Your task to perform on an android device: Open Android settings Image 0: 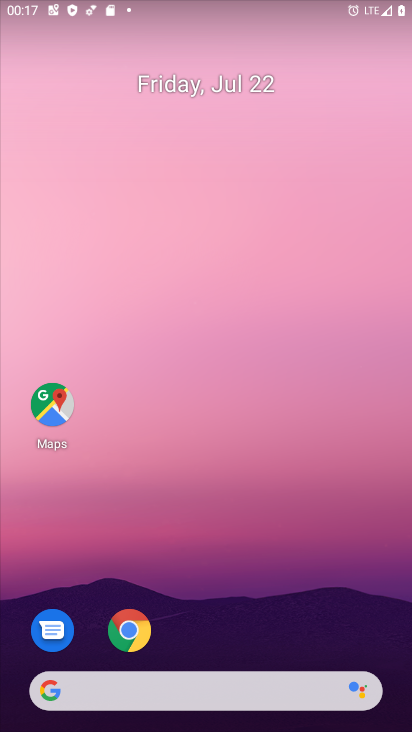
Step 0: drag from (258, 632) to (114, 170)
Your task to perform on an android device: Open Android settings Image 1: 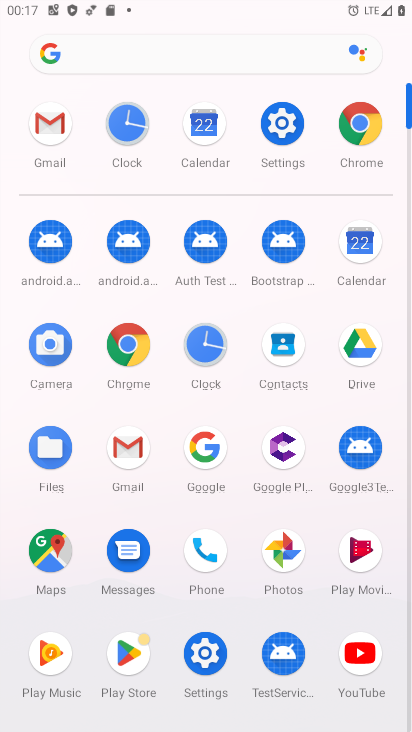
Step 1: click (208, 657)
Your task to perform on an android device: Open Android settings Image 2: 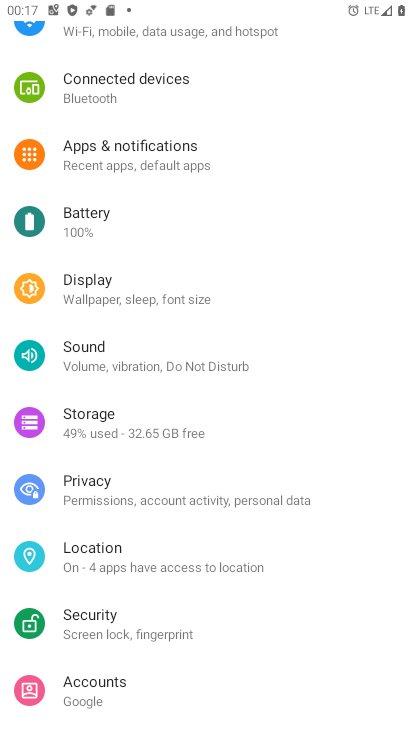
Step 2: drag from (201, 672) to (148, 101)
Your task to perform on an android device: Open Android settings Image 3: 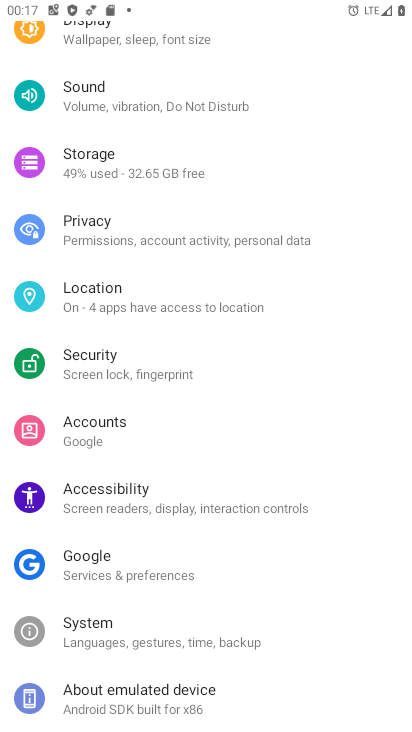
Step 3: click (144, 694)
Your task to perform on an android device: Open Android settings Image 4: 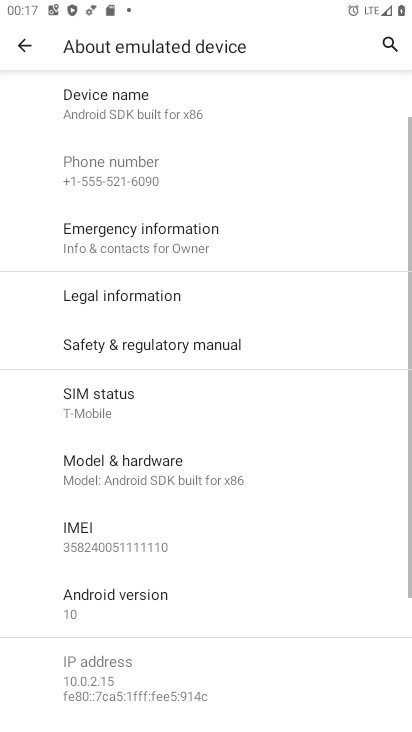
Step 4: click (127, 611)
Your task to perform on an android device: Open Android settings Image 5: 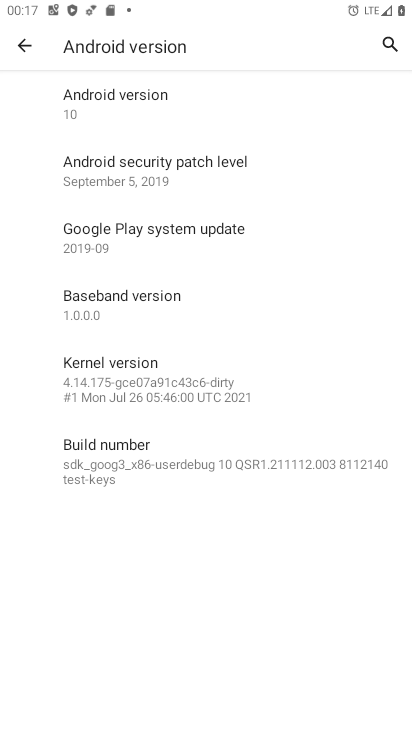
Step 5: task complete